Your task to perform on an android device: Search for seafood restaurants on Google Maps Image 0: 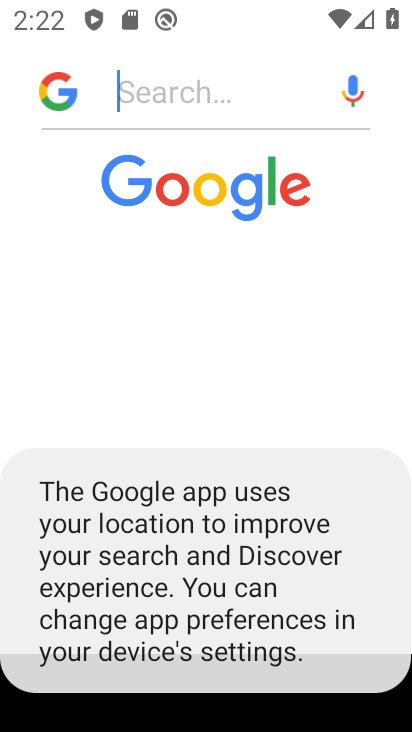
Step 0: press home button
Your task to perform on an android device: Search for seafood restaurants on Google Maps Image 1: 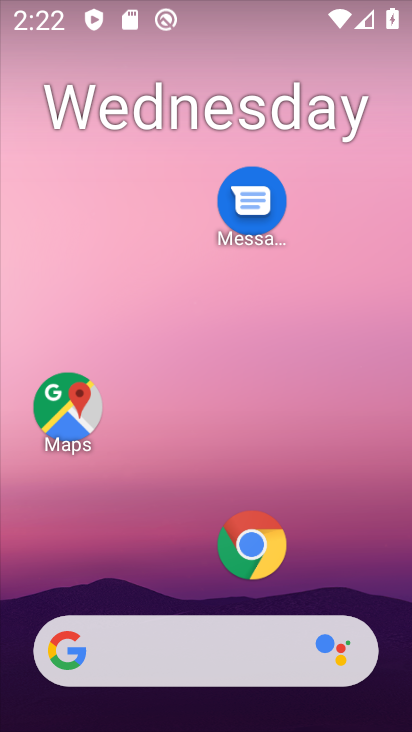
Step 1: click (67, 403)
Your task to perform on an android device: Search for seafood restaurants on Google Maps Image 2: 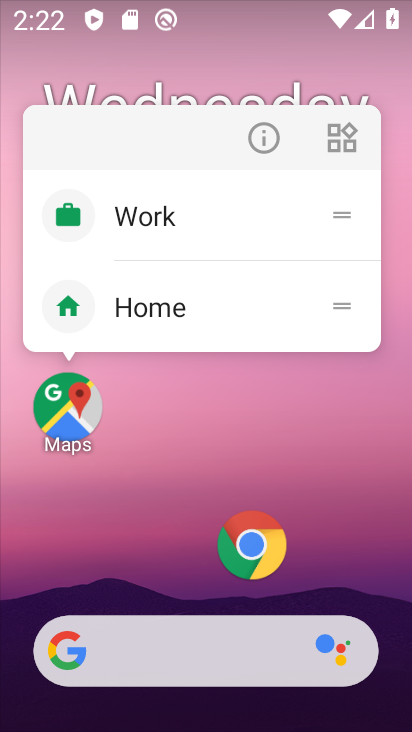
Step 2: click (67, 403)
Your task to perform on an android device: Search for seafood restaurants on Google Maps Image 3: 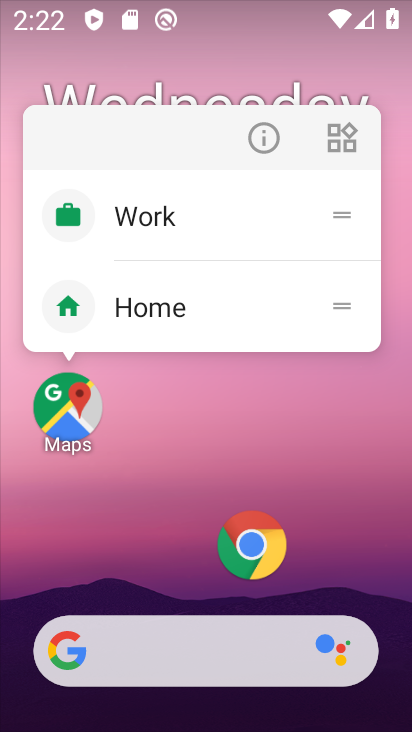
Step 3: click (60, 419)
Your task to perform on an android device: Search for seafood restaurants on Google Maps Image 4: 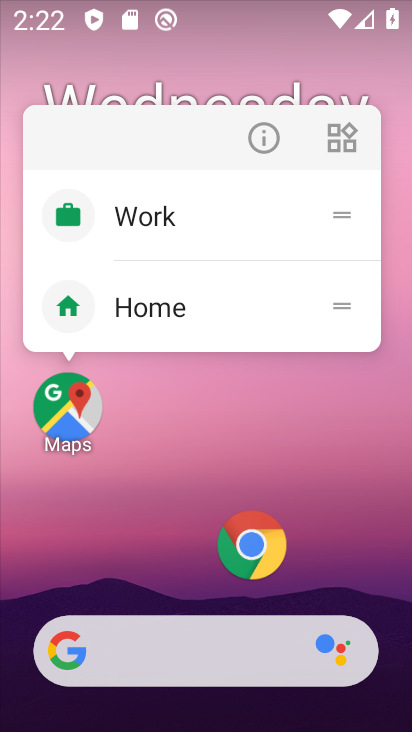
Step 4: click (60, 419)
Your task to perform on an android device: Search for seafood restaurants on Google Maps Image 5: 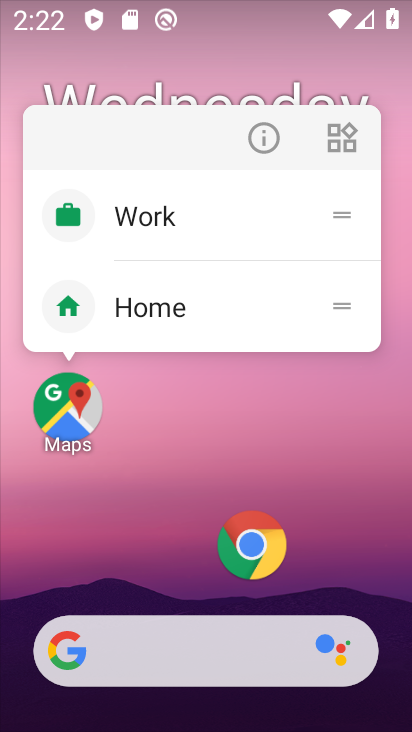
Step 5: click (63, 414)
Your task to perform on an android device: Search for seafood restaurants on Google Maps Image 6: 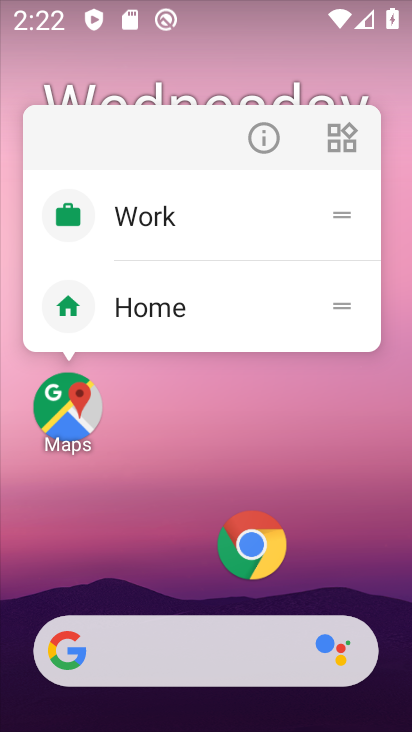
Step 6: click (63, 414)
Your task to perform on an android device: Search for seafood restaurants on Google Maps Image 7: 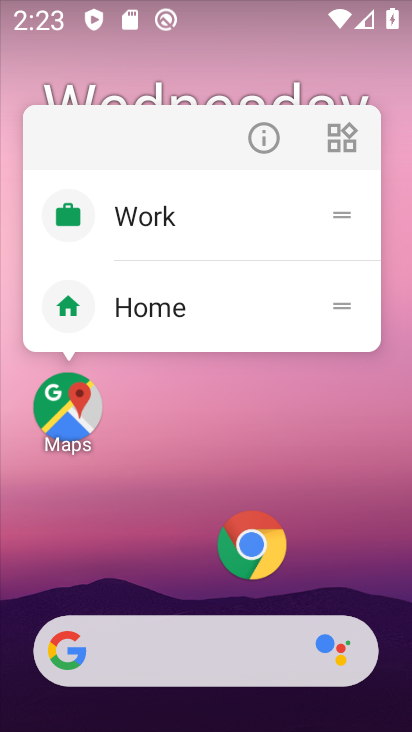
Step 7: click (52, 428)
Your task to perform on an android device: Search for seafood restaurants on Google Maps Image 8: 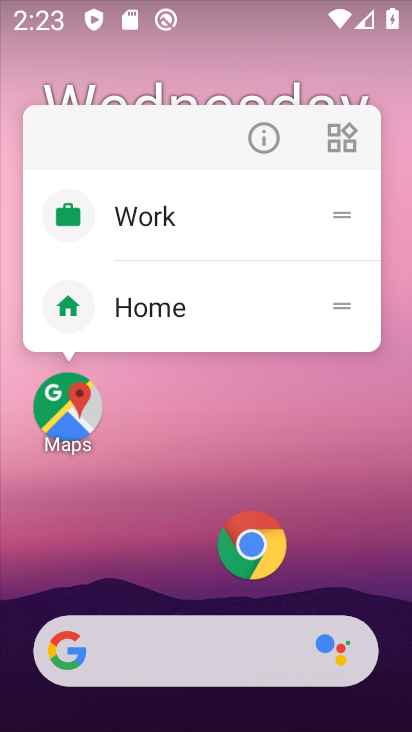
Step 8: drag from (135, 534) to (230, 18)
Your task to perform on an android device: Search for seafood restaurants on Google Maps Image 9: 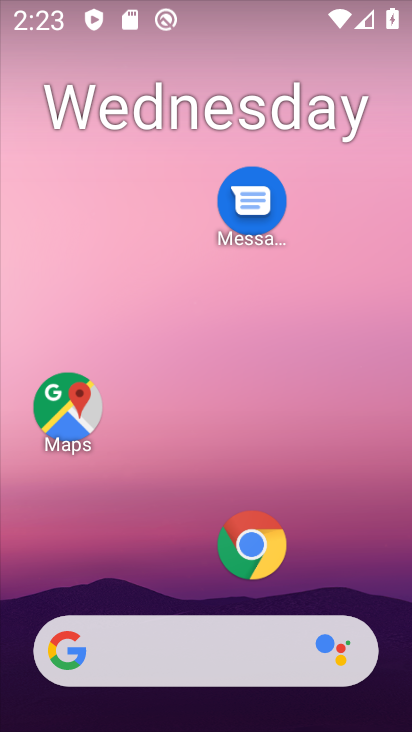
Step 9: drag from (127, 556) to (182, 50)
Your task to perform on an android device: Search for seafood restaurants on Google Maps Image 10: 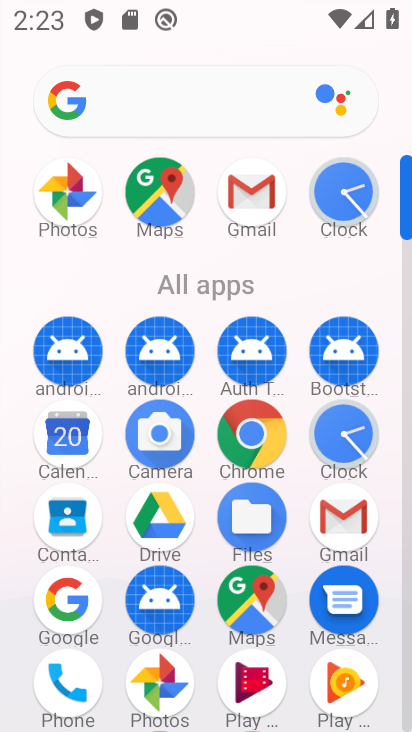
Step 10: click (167, 193)
Your task to perform on an android device: Search for seafood restaurants on Google Maps Image 11: 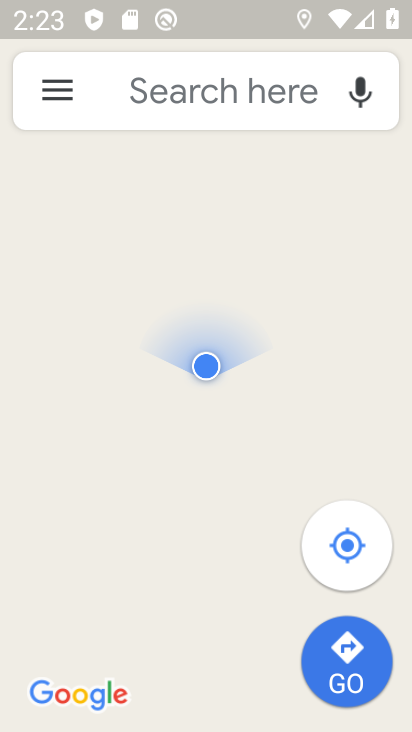
Step 11: click (144, 79)
Your task to perform on an android device: Search for seafood restaurants on Google Maps Image 12: 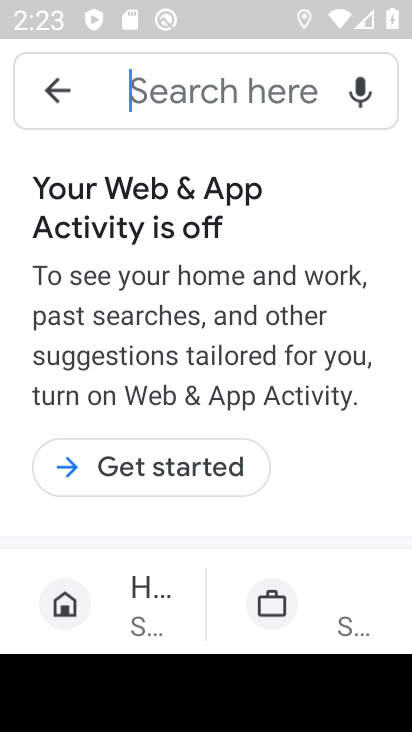
Step 12: type "seafood restaurants"
Your task to perform on an android device: Search for seafood restaurants on Google Maps Image 13: 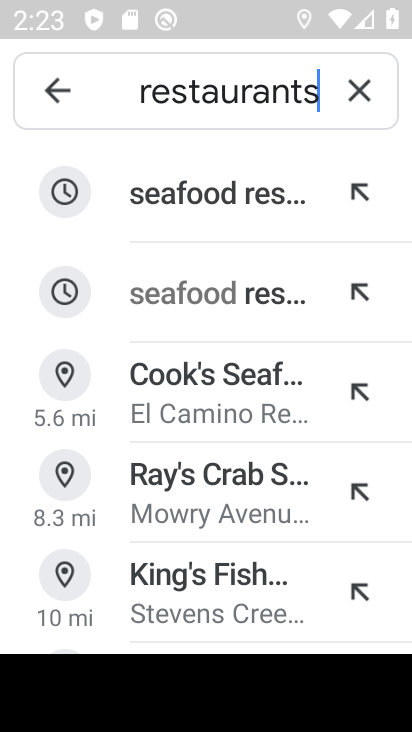
Step 13: click (214, 193)
Your task to perform on an android device: Search for seafood restaurants on Google Maps Image 14: 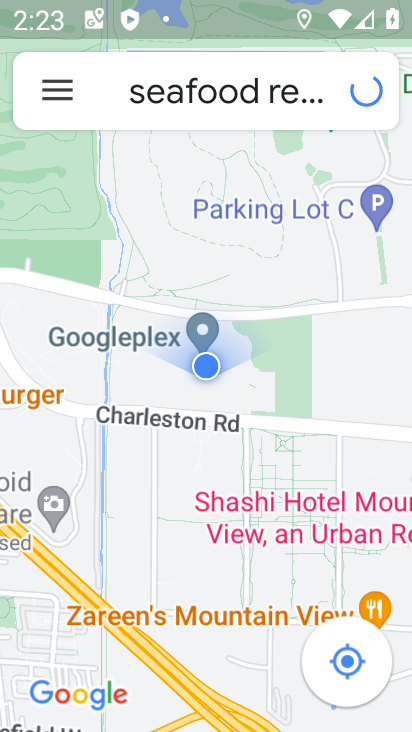
Step 14: task complete